Your task to perform on an android device: change alarm snooze length Image 0: 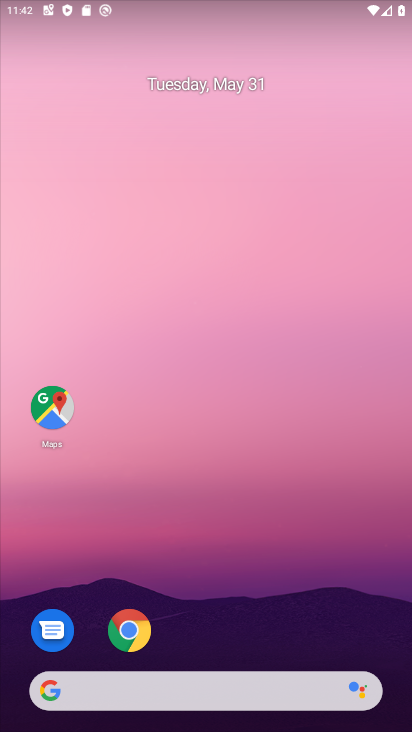
Step 0: drag from (226, 524) to (234, 178)
Your task to perform on an android device: change alarm snooze length Image 1: 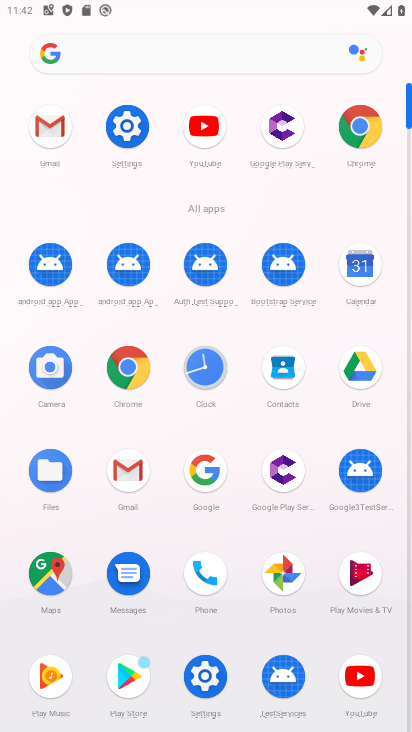
Step 1: click (219, 368)
Your task to perform on an android device: change alarm snooze length Image 2: 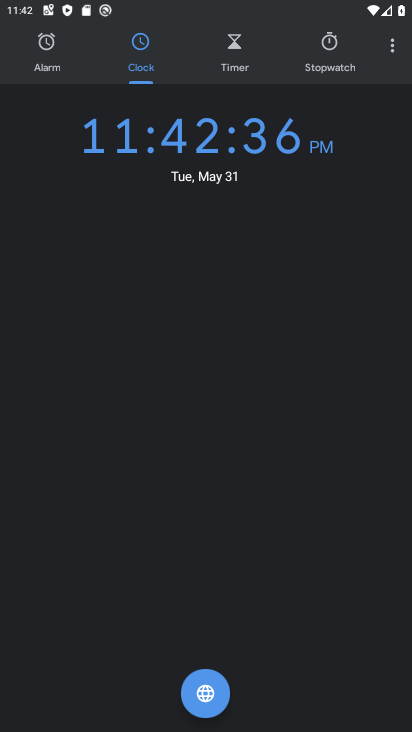
Step 2: click (397, 44)
Your task to perform on an android device: change alarm snooze length Image 3: 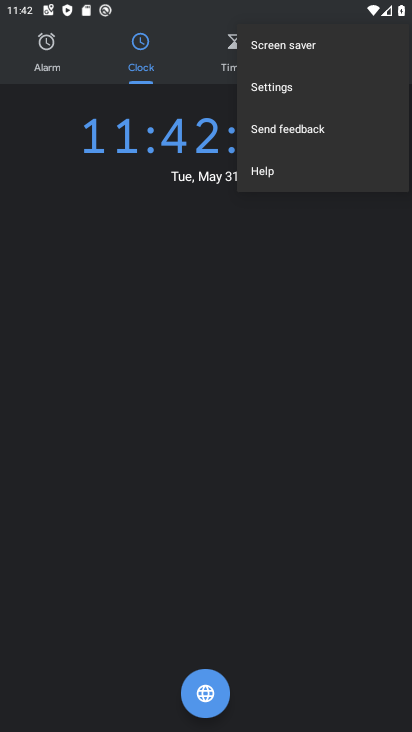
Step 3: click (350, 96)
Your task to perform on an android device: change alarm snooze length Image 4: 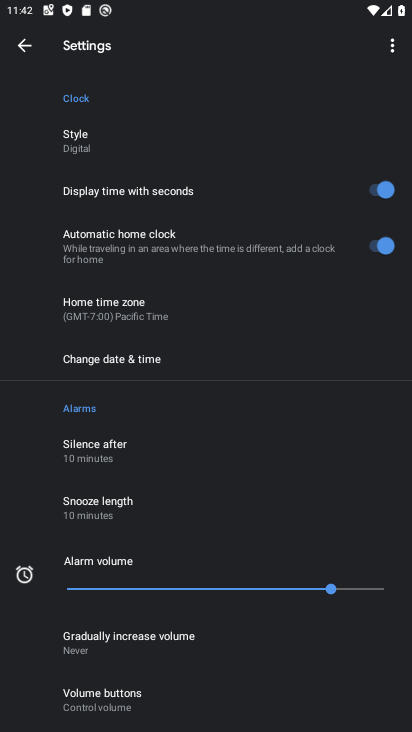
Step 4: drag from (302, 684) to (291, 716)
Your task to perform on an android device: change alarm snooze length Image 5: 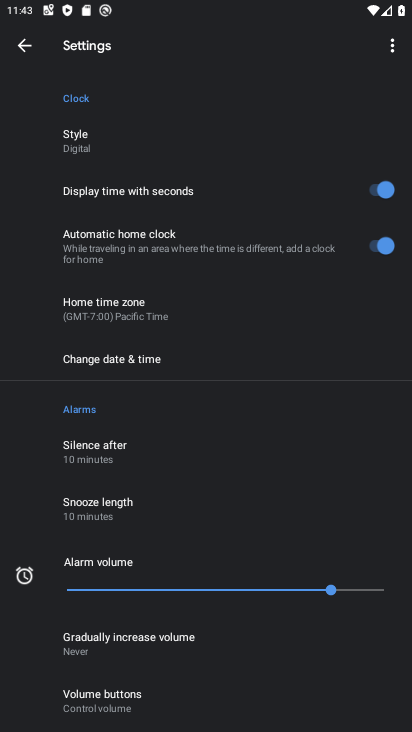
Step 5: click (179, 512)
Your task to perform on an android device: change alarm snooze length Image 6: 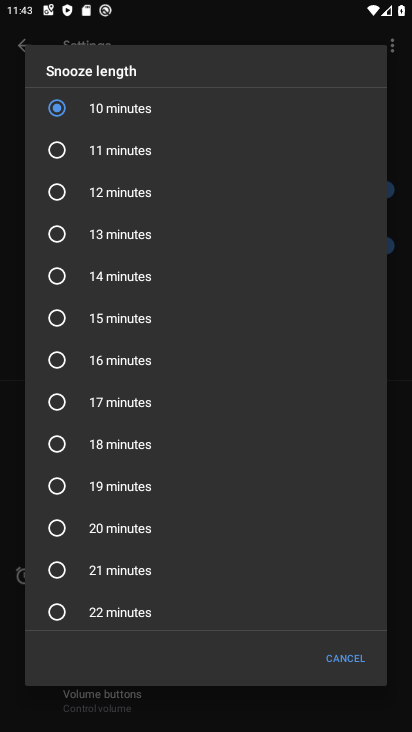
Step 6: click (58, 233)
Your task to perform on an android device: change alarm snooze length Image 7: 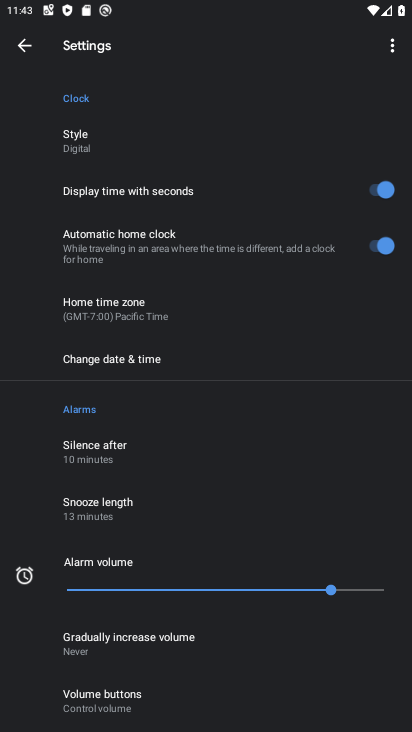
Step 7: task complete